Your task to perform on an android device: Go to Android settings Image 0: 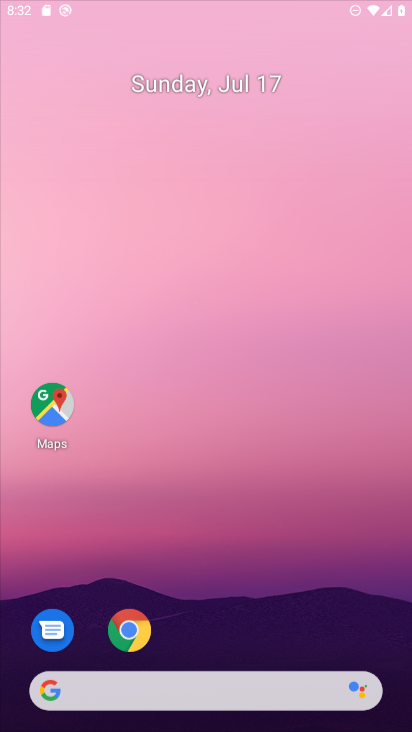
Step 0: drag from (304, 387) to (196, 33)
Your task to perform on an android device: Go to Android settings Image 1: 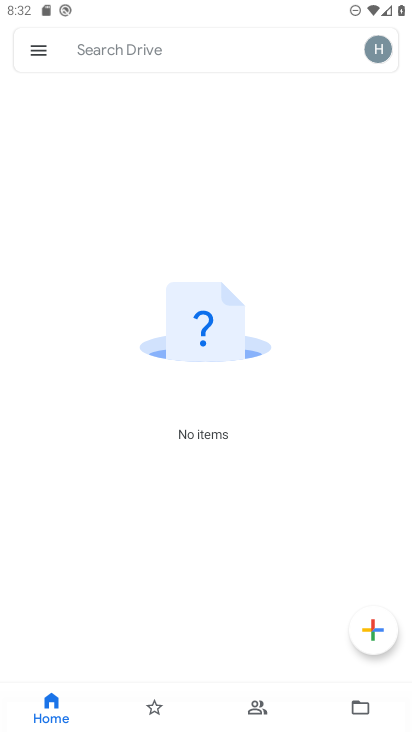
Step 1: press home button
Your task to perform on an android device: Go to Android settings Image 2: 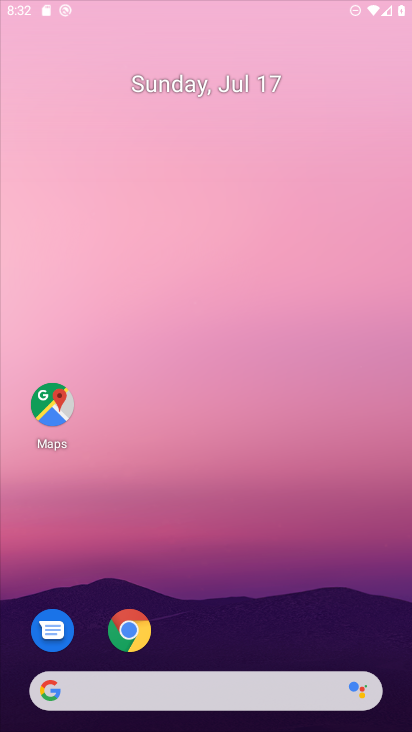
Step 2: drag from (338, 676) to (202, 100)
Your task to perform on an android device: Go to Android settings Image 3: 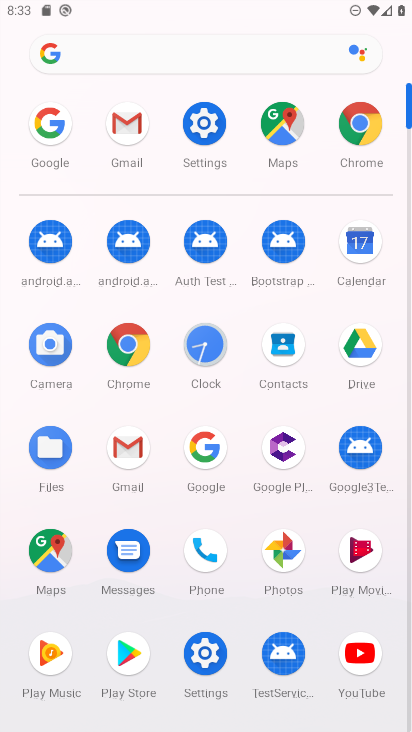
Step 3: click (203, 665)
Your task to perform on an android device: Go to Android settings Image 4: 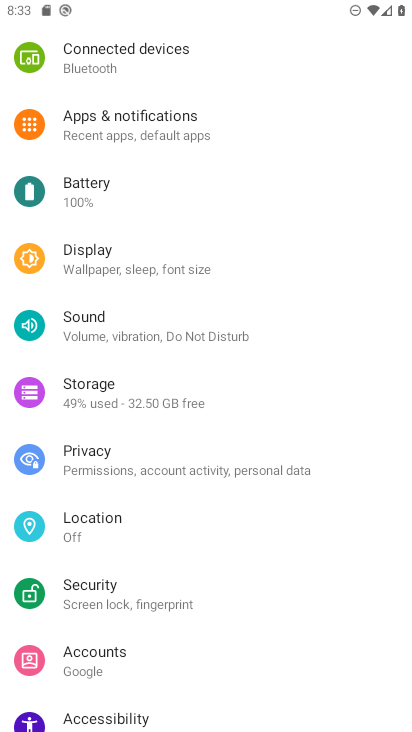
Step 4: task complete